Your task to perform on an android device: Turn off the flashlight Image 0: 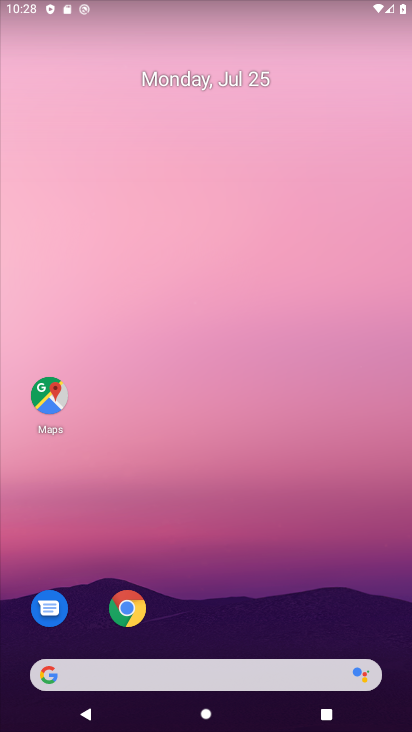
Step 0: click (193, 235)
Your task to perform on an android device: Turn off the flashlight Image 1: 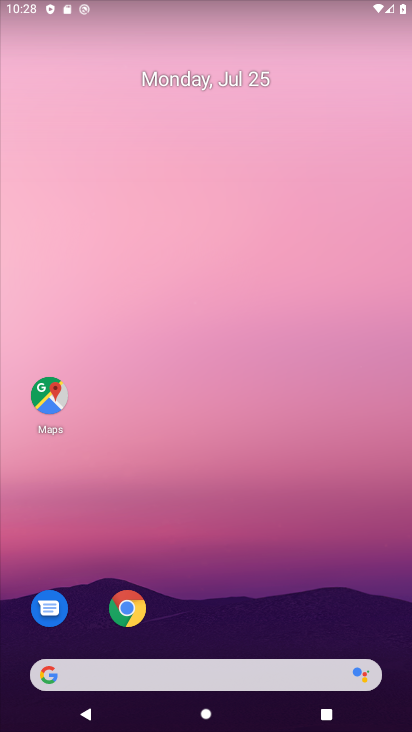
Step 1: task complete